Your task to perform on an android device: find photos in the google photos app Image 0: 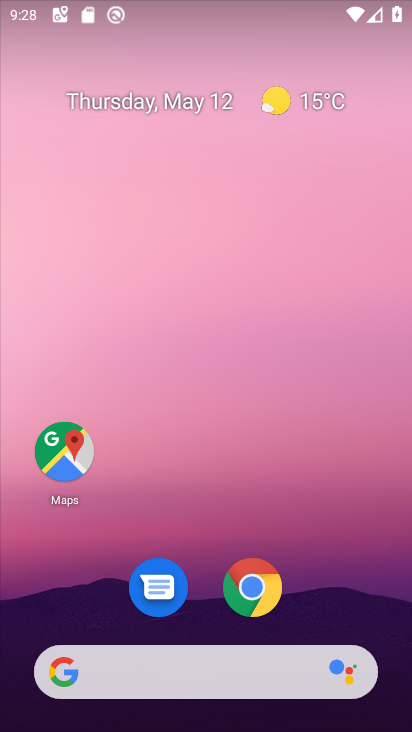
Step 0: drag from (392, 664) to (372, 0)
Your task to perform on an android device: find photos in the google photos app Image 1: 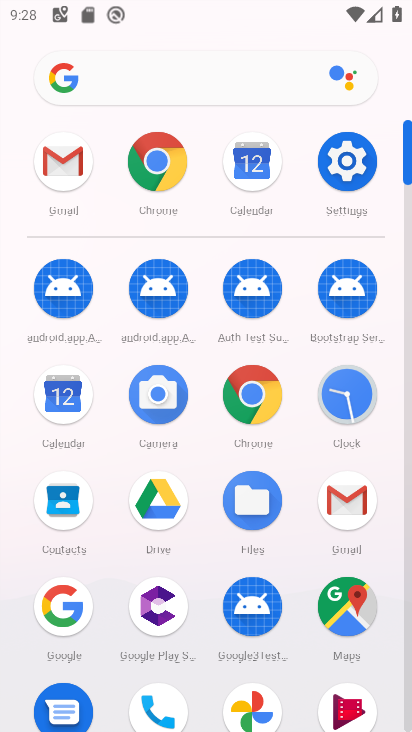
Step 1: click (243, 697)
Your task to perform on an android device: find photos in the google photos app Image 2: 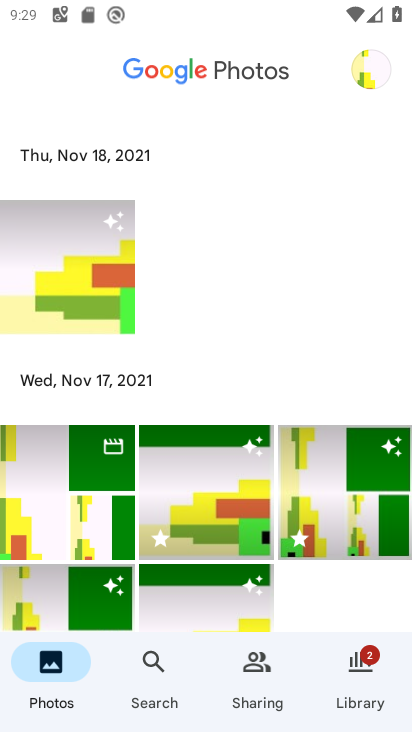
Step 2: task complete